Your task to perform on an android device: Search for Italian restaurants on Maps Image 0: 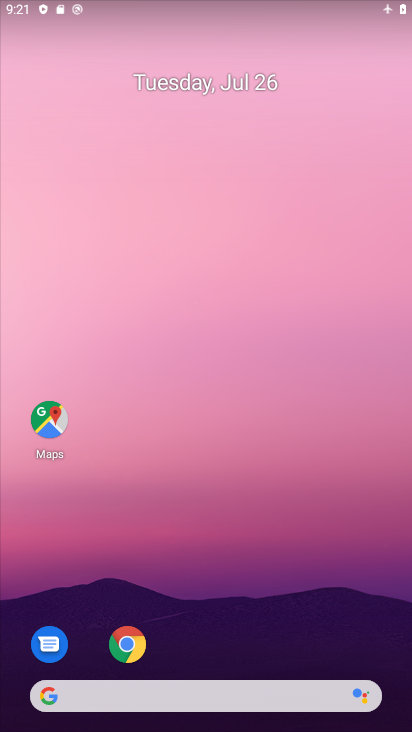
Step 0: click (36, 408)
Your task to perform on an android device: Search for Italian restaurants on Maps Image 1: 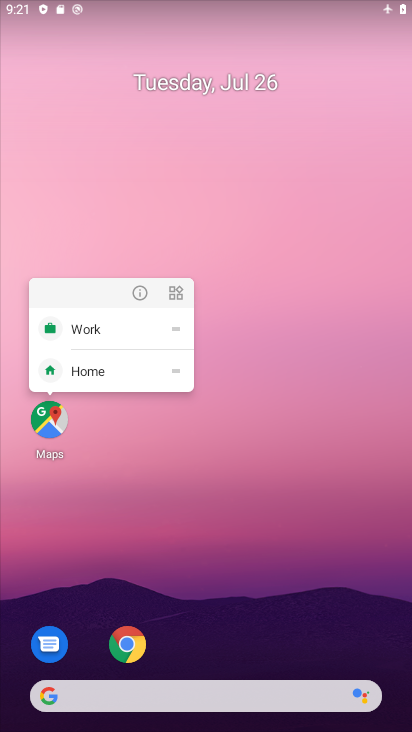
Step 1: click (56, 449)
Your task to perform on an android device: Search for Italian restaurants on Maps Image 2: 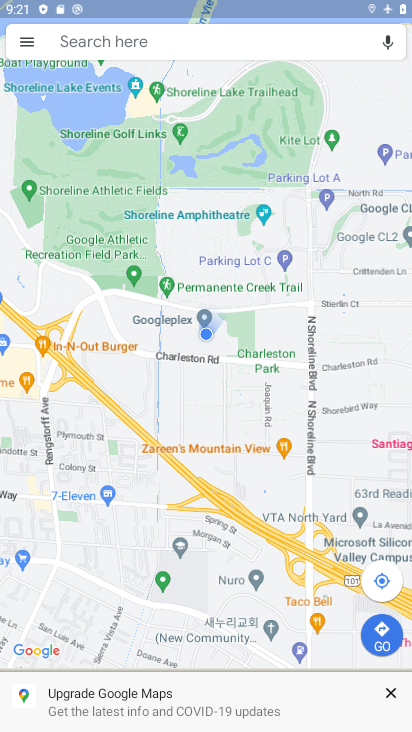
Step 2: click (157, 31)
Your task to perform on an android device: Search for Italian restaurants on Maps Image 3: 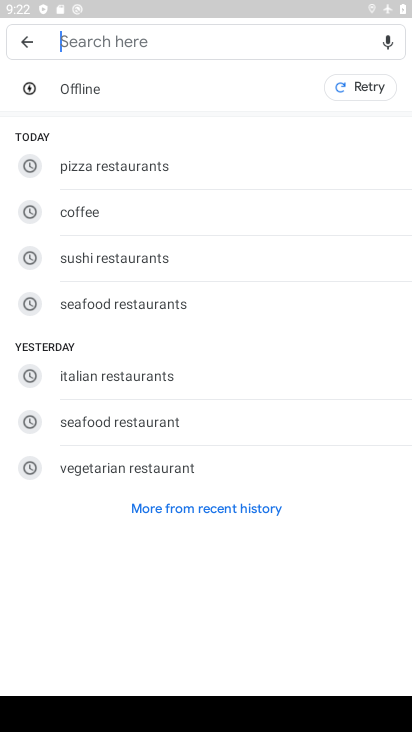
Step 3: type "italian restaurants"
Your task to perform on an android device: Search for Italian restaurants on Maps Image 4: 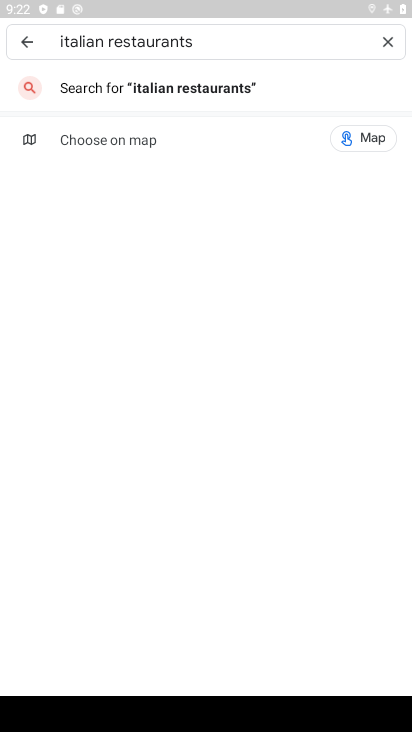
Step 4: click (213, 85)
Your task to perform on an android device: Search for Italian restaurants on Maps Image 5: 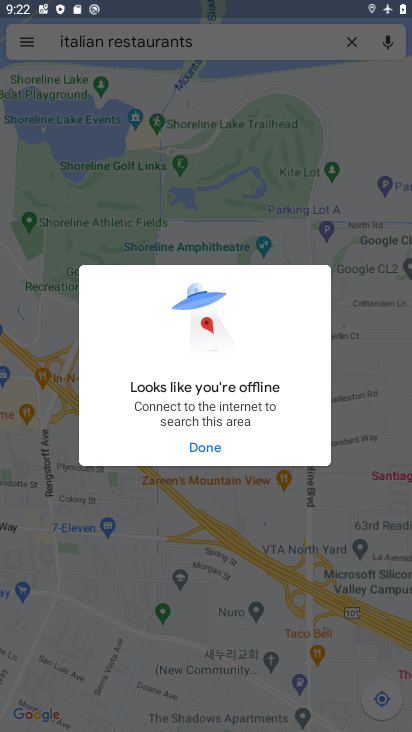
Step 5: click (214, 441)
Your task to perform on an android device: Search for Italian restaurants on Maps Image 6: 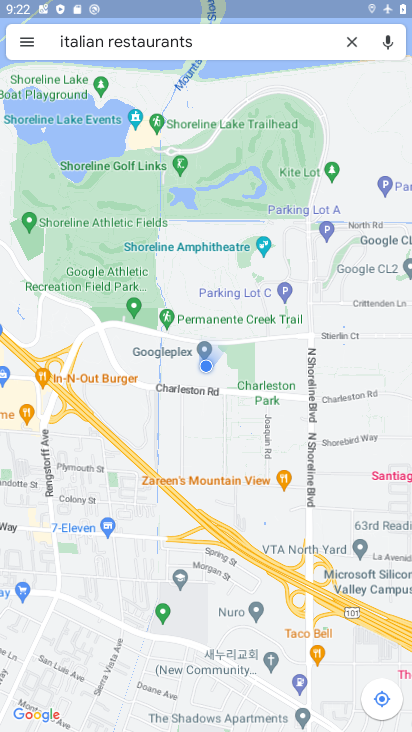
Step 6: task complete